Your task to perform on an android device: Play the last video I watched on Youtube Image 0: 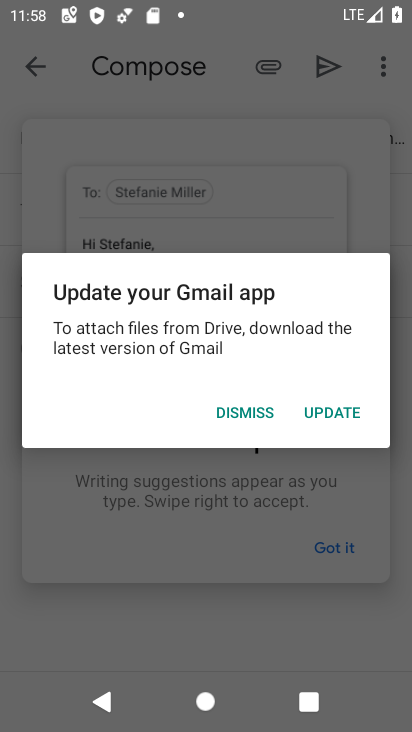
Step 0: press home button
Your task to perform on an android device: Play the last video I watched on Youtube Image 1: 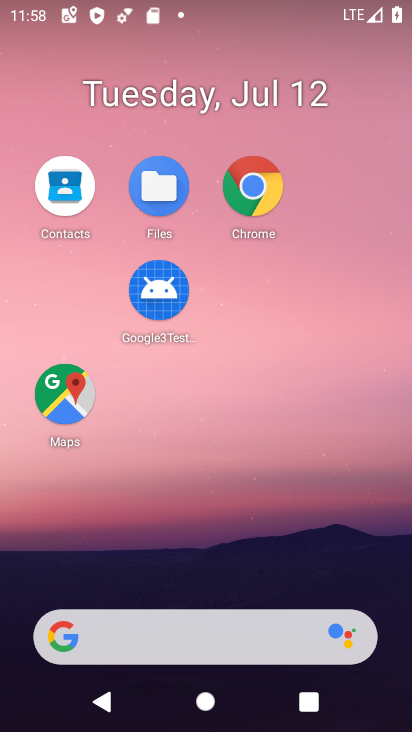
Step 1: drag from (172, 575) to (141, 149)
Your task to perform on an android device: Play the last video I watched on Youtube Image 2: 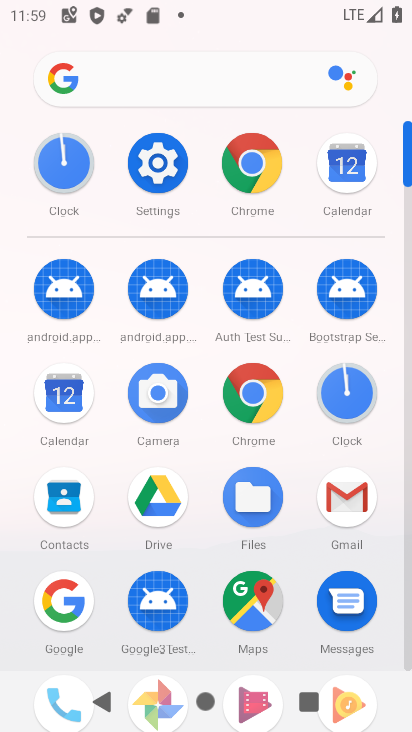
Step 2: drag from (207, 548) to (213, 204)
Your task to perform on an android device: Play the last video I watched on Youtube Image 3: 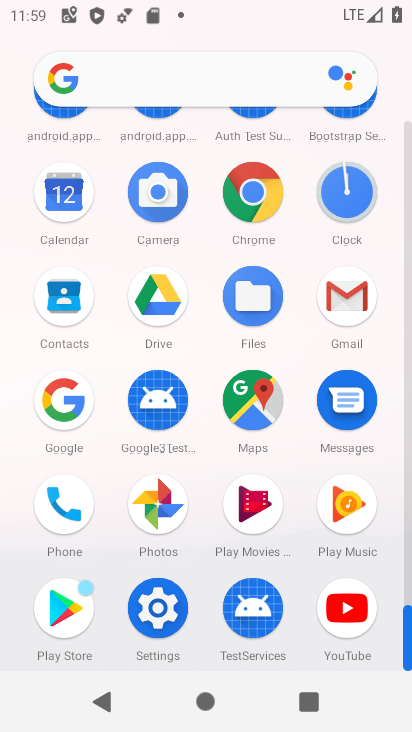
Step 3: click (355, 613)
Your task to perform on an android device: Play the last video I watched on Youtube Image 4: 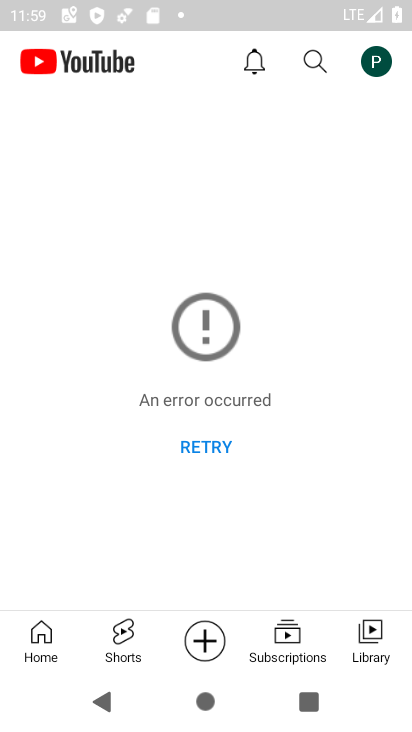
Step 4: click (359, 627)
Your task to perform on an android device: Play the last video I watched on Youtube Image 5: 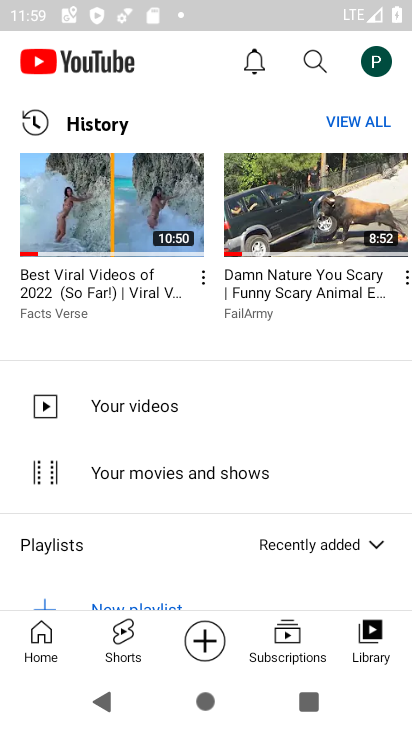
Step 5: click (122, 169)
Your task to perform on an android device: Play the last video I watched on Youtube Image 6: 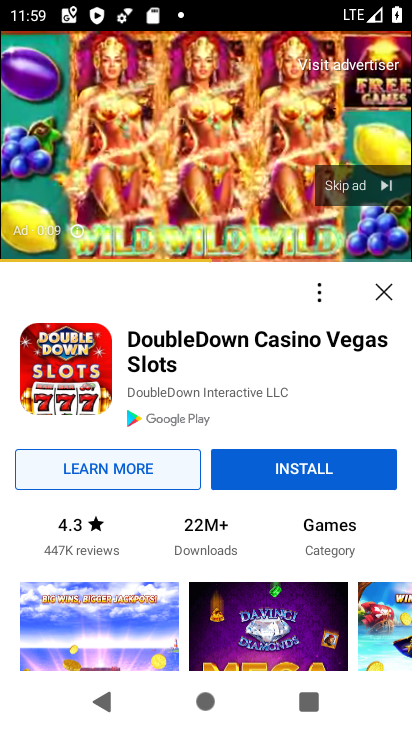
Step 6: click (355, 185)
Your task to perform on an android device: Play the last video I watched on Youtube Image 7: 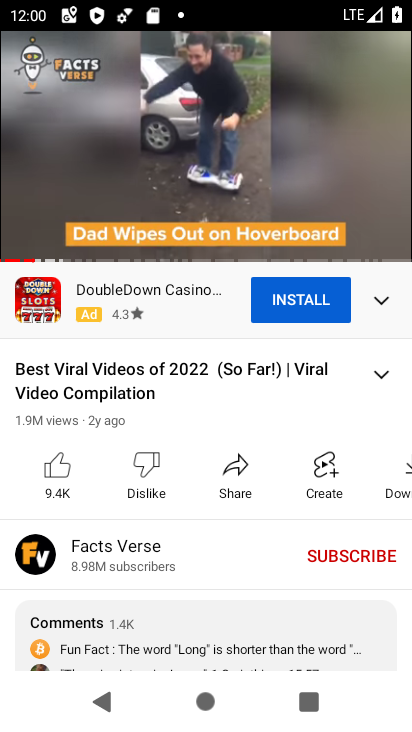
Step 7: task complete